Your task to perform on an android device: open app "Google Play Music" (install if not already installed) Image 0: 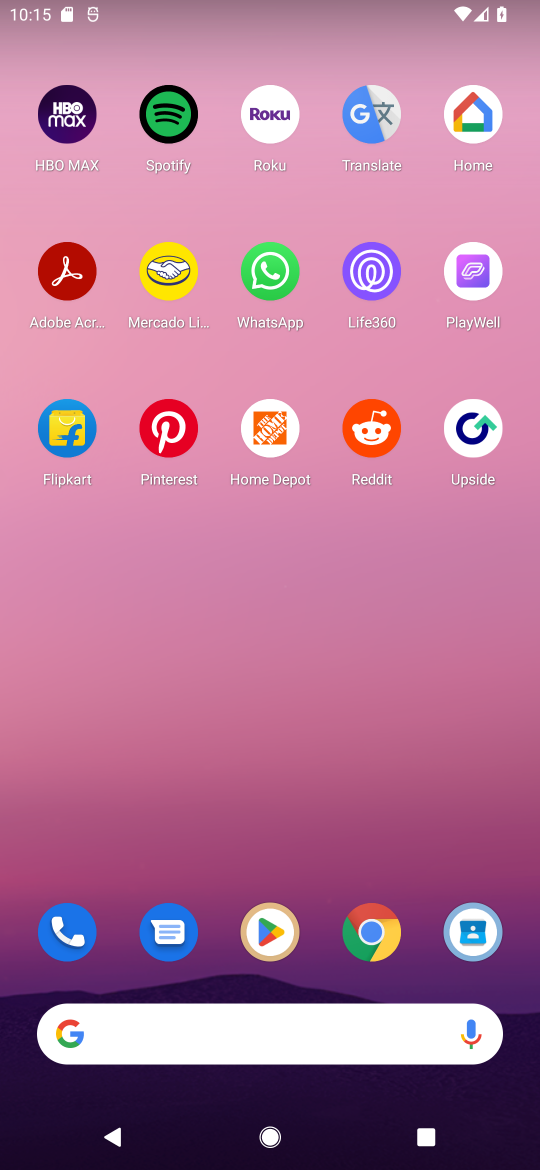
Step 0: click (266, 927)
Your task to perform on an android device: open app "Google Play Music" (install if not already installed) Image 1: 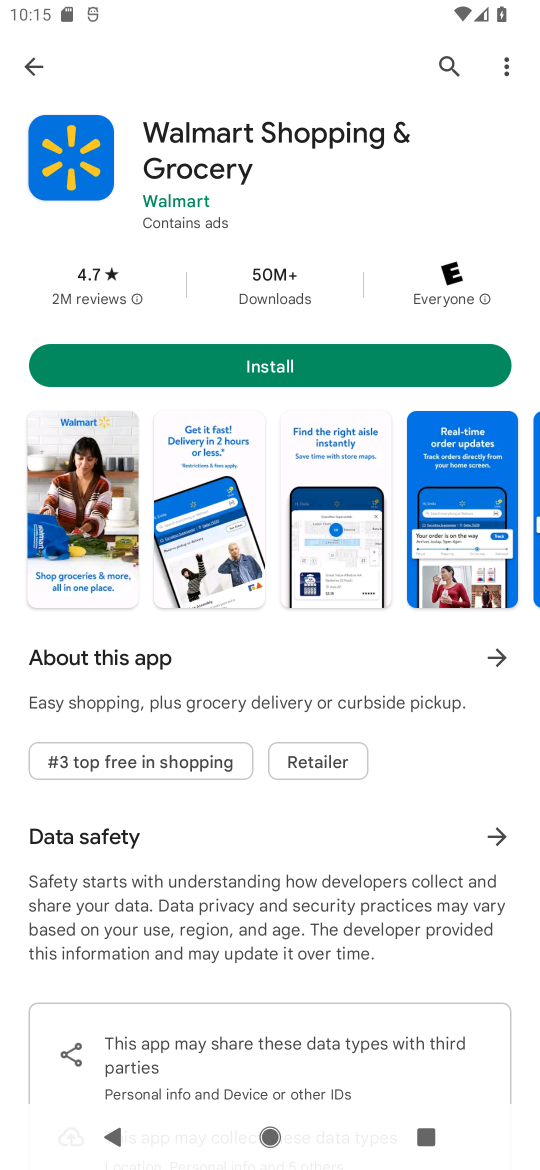
Step 1: click (445, 54)
Your task to perform on an android device: open app "Google Play Music" (install if not already installed) Image 2: 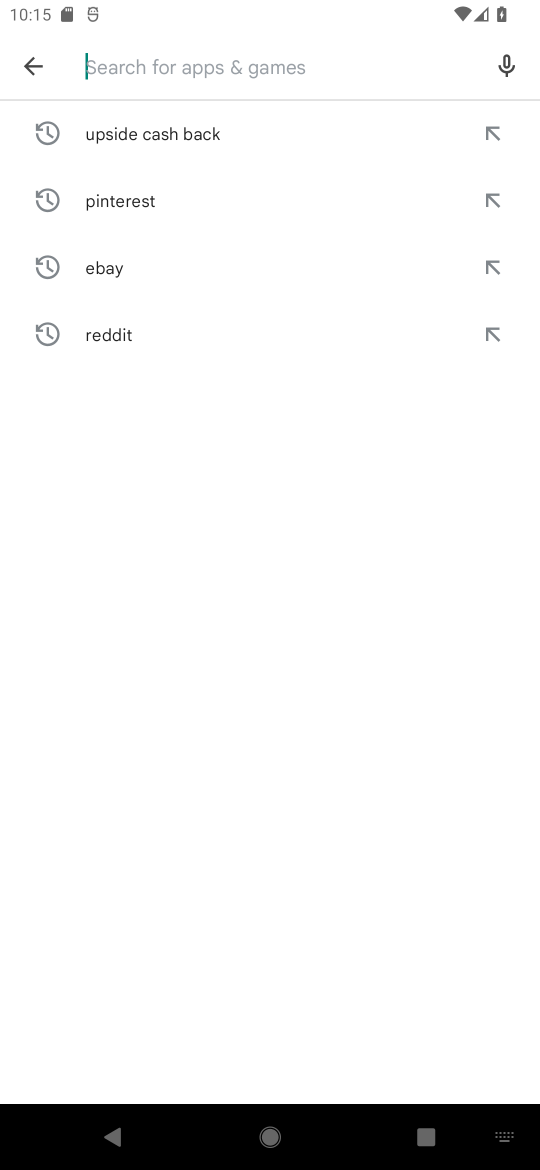
Step 2: click (154, 69)
Your task to perform on an android device: open app "Google Play Music" (install if not already installed) Image 3: 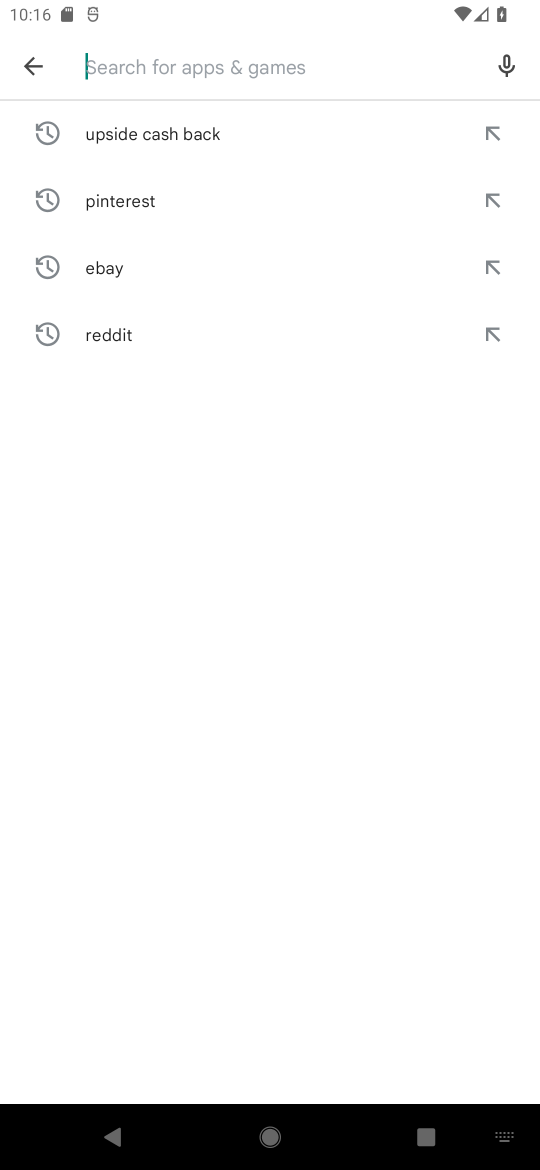
Step 3: type "Google Play Music"
Your task to perform on an android device: open app "Google Play Music" (install if not already installed) Image 4: 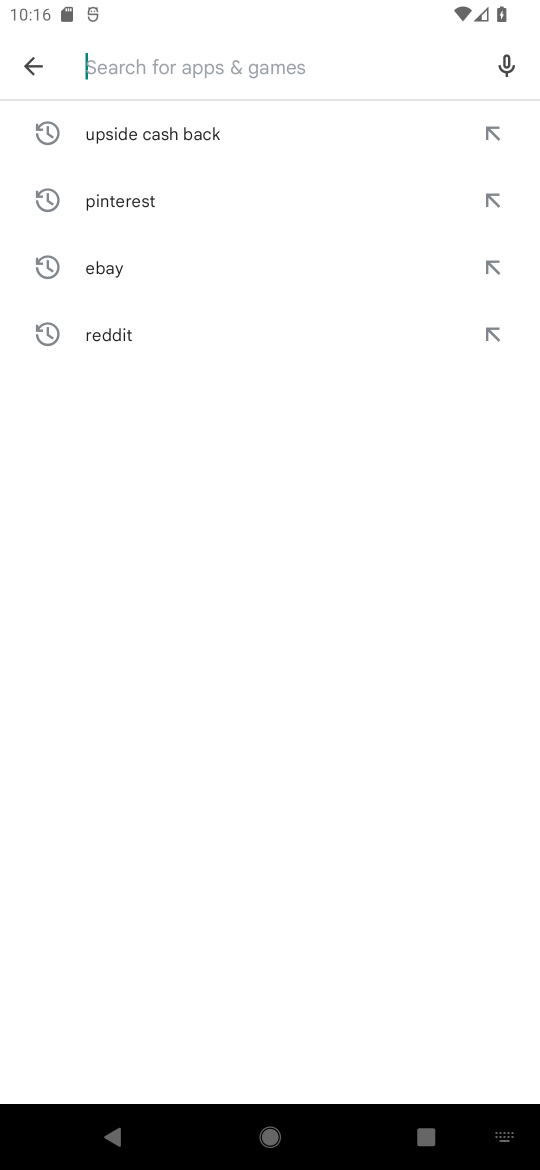
Step 4: click (241, 994)
Your task to perform on an android device: open app "Google Play Music" (install if not already installed) Image 5: 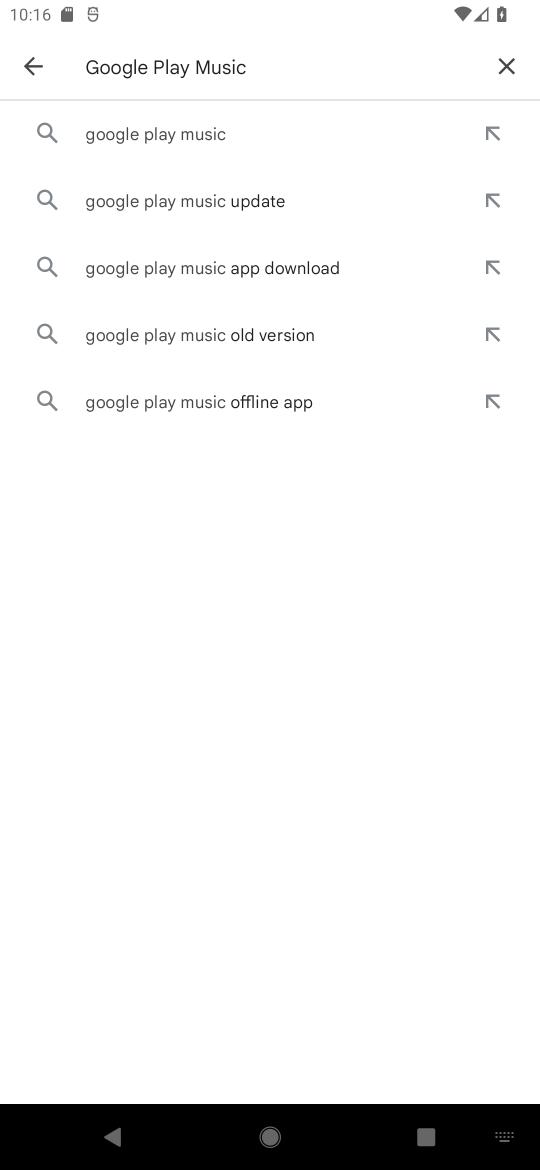
Step 5: click (188, 136)
Your task to perform on an android device: open app "Google Play Music" (install if not already installed) Image 6: 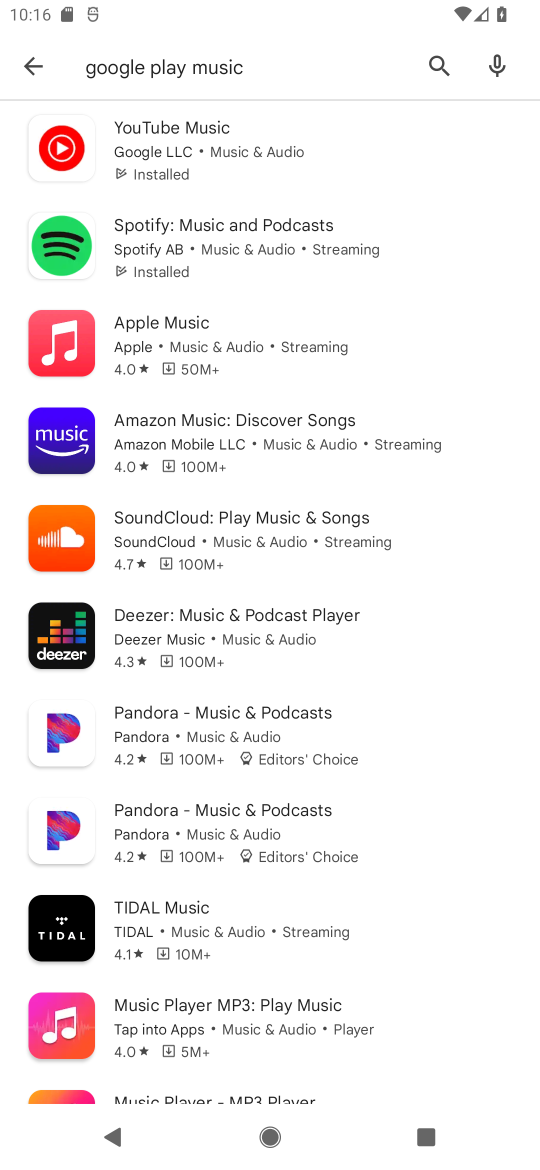
Step 6: task complete